Your task to perform on an android device: toggle show notifications on the lock screen Image 0: 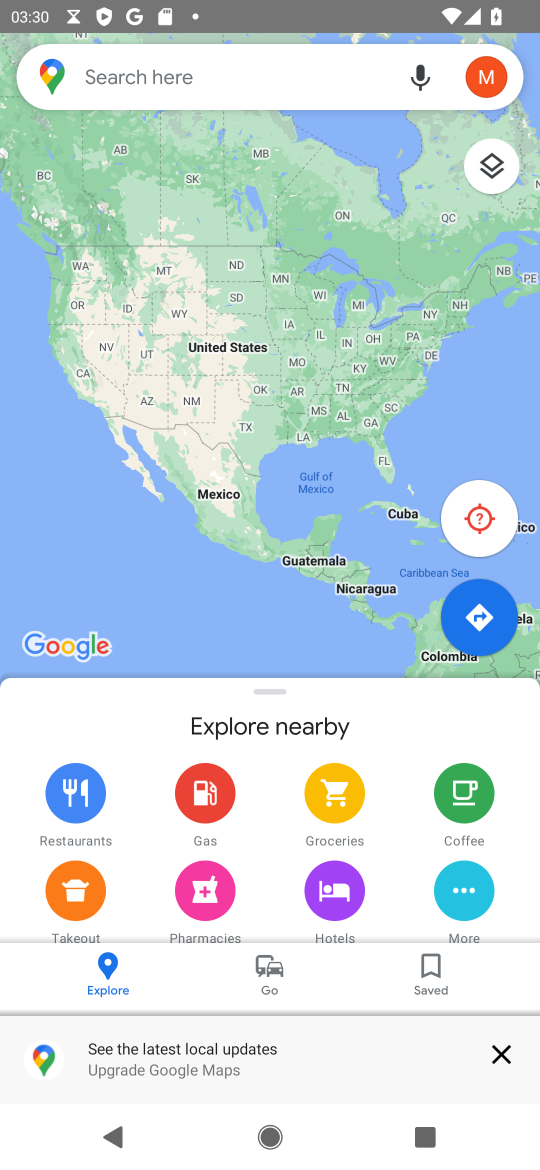
Step 0: press home button
Your task to perform on an android device: toggle show notifications on the lock screen Image 1: 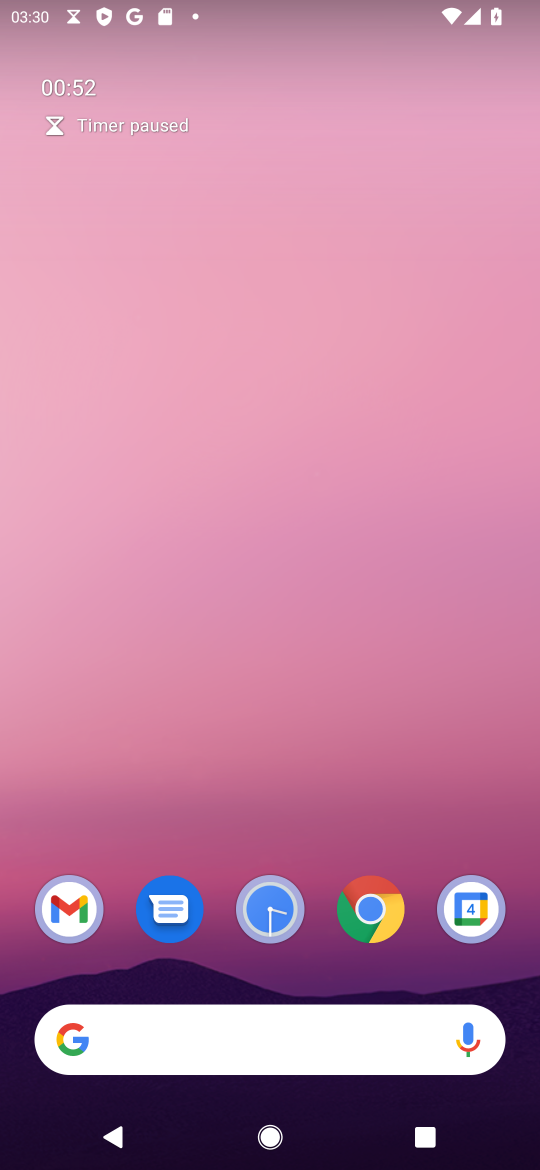
Step 1: drag from (189, 1031) to (453, 568)
Your task to perform on an android device: toggle show notifications on the lock screen Image 2: 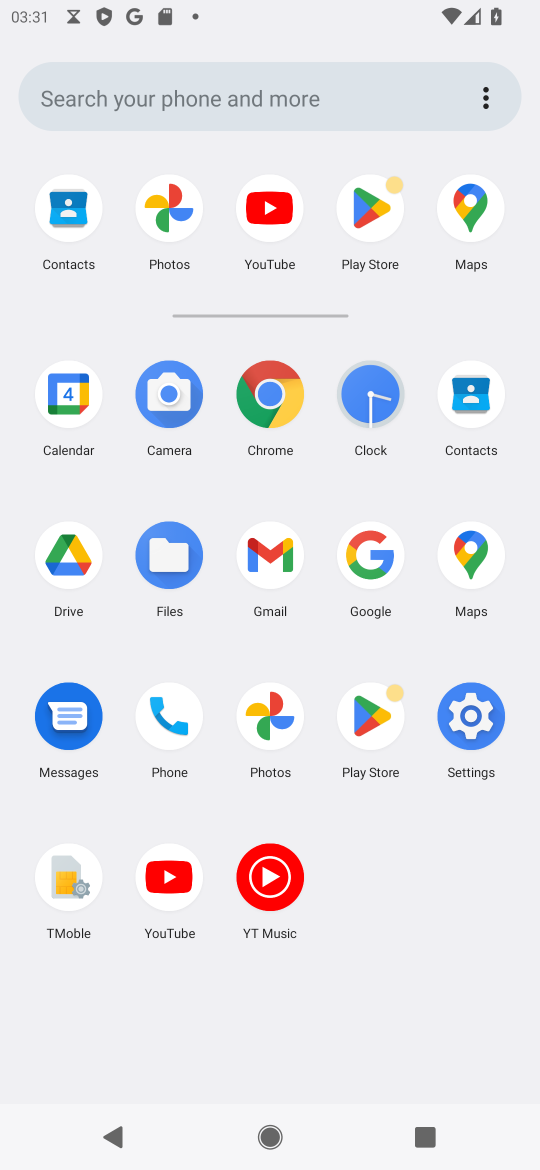
Step 2: click (454, 710)
Your task to perform on an android device: toggle show notifications on the lock screen Image 3: 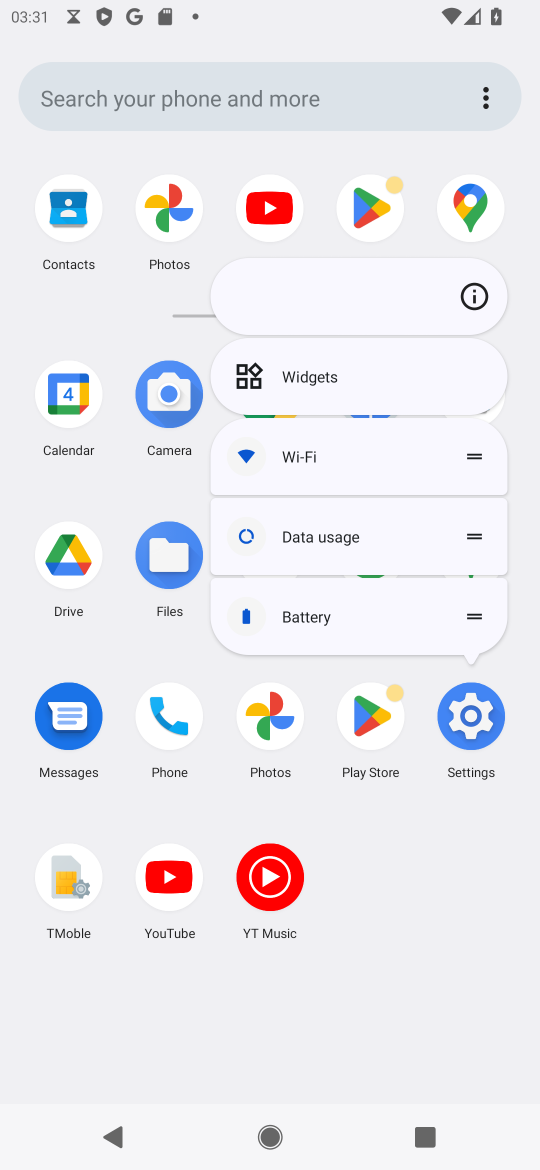
Step 3: click (483, 708)
Your task to perform on an android device: toggle show notifications on the lock screen Image 4: 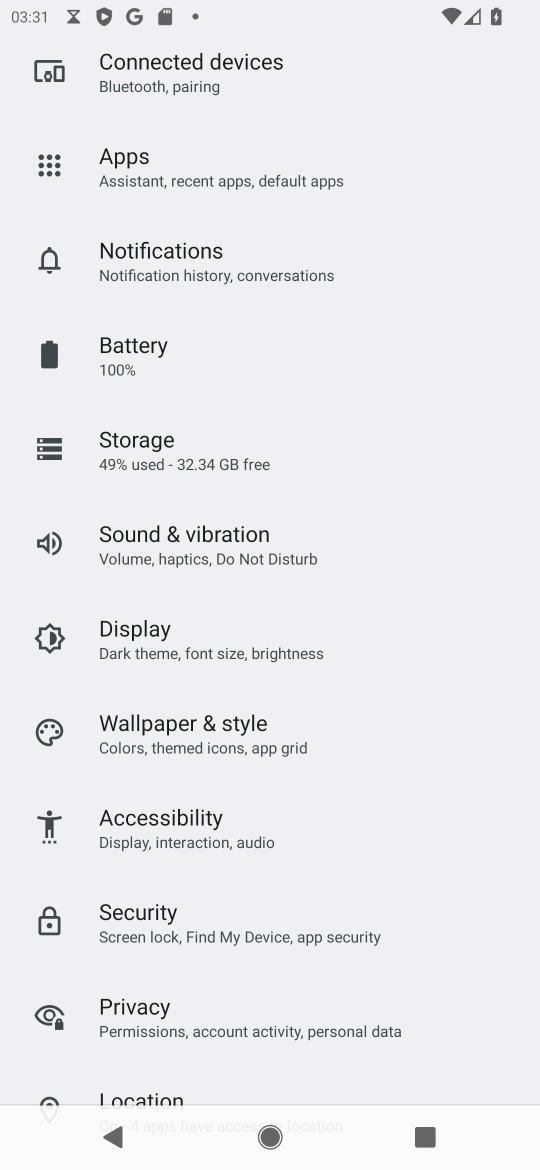
Step 4: click (238, 259)
Your task to perform on an android device: toggle show notifications on the lock screen Image 5: 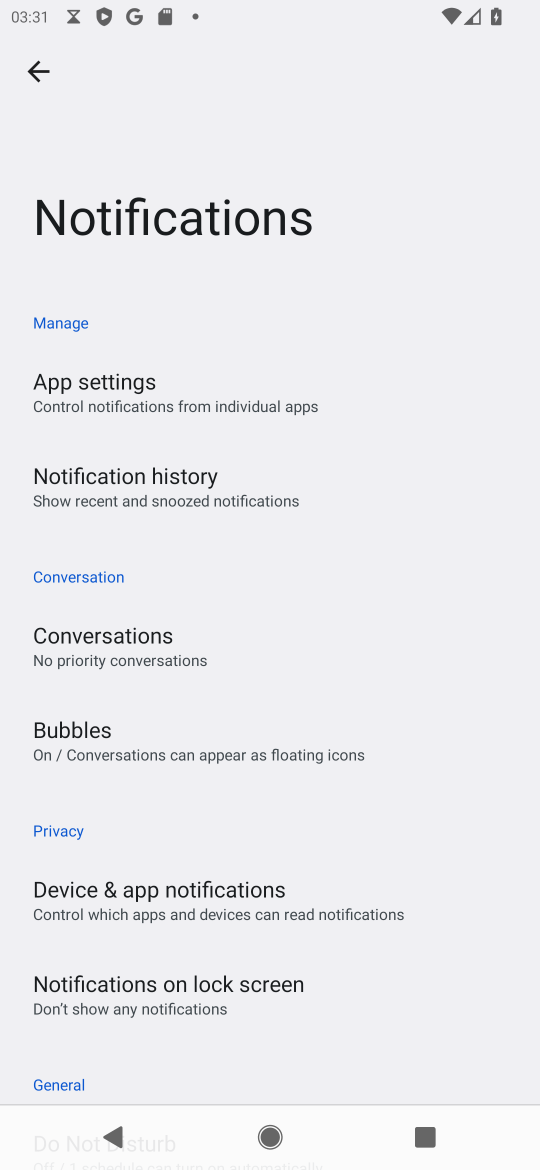
Step 5: click (217, 995)
Your task to perform on an android device: toggle show notifications on the lock screen Image 6: 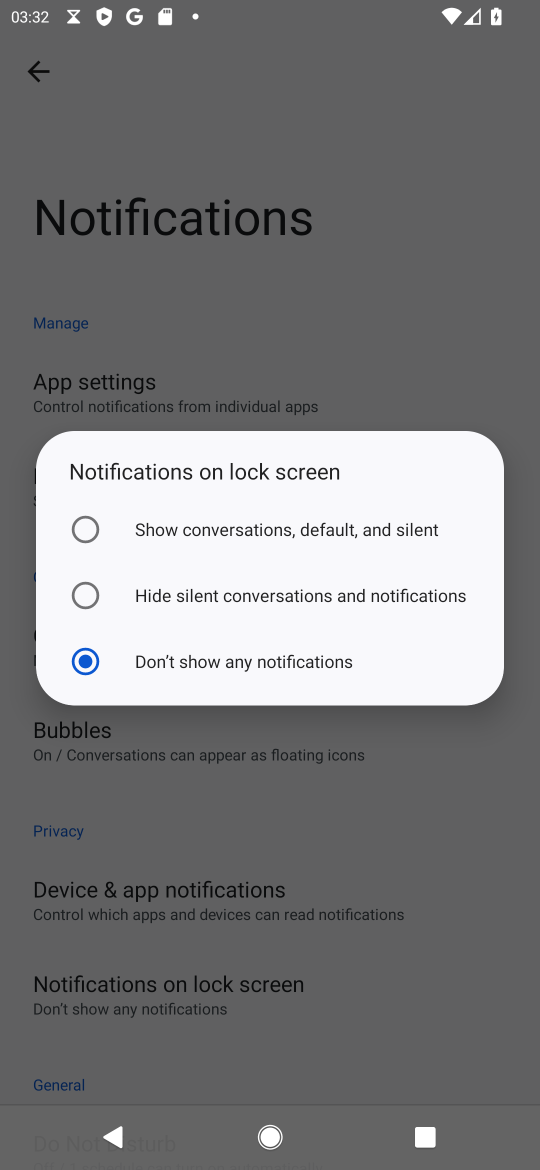
Step 6: click (89, 528)
Your task to perform on an android device: toggle show notifications on the lock screen Image 7: 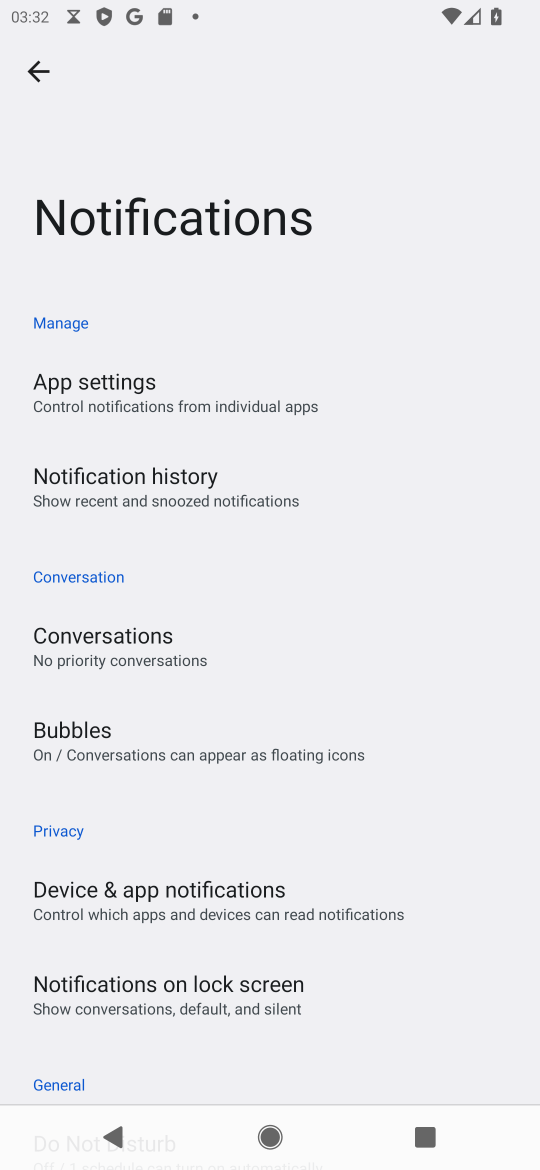
Step 7: task complete